Your task to perform on an android device: turn on wifi Image 0: 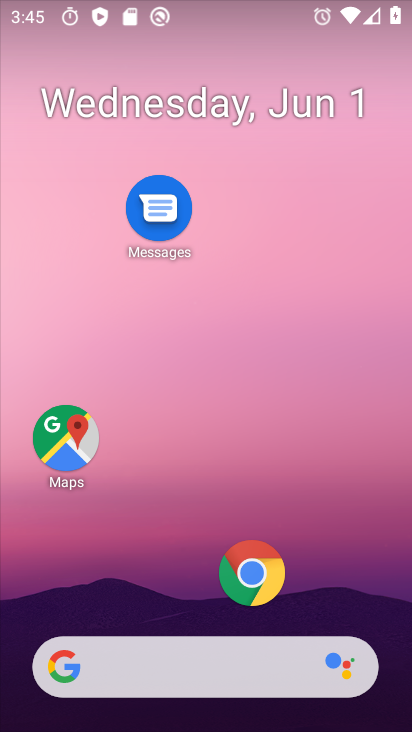
Step 0: drag from (193, 623) to (198, 219)
Your task to perform on an android device: turn on wifi Image 1: 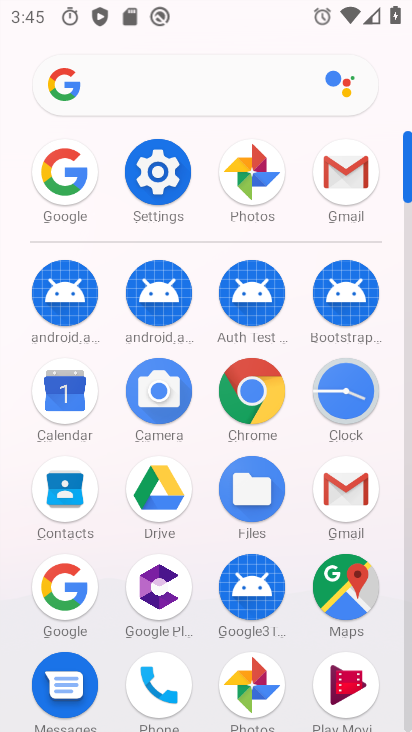
Step 1: click (165, 184)
Your task to perform on an android device: turn on wifi Image 2: 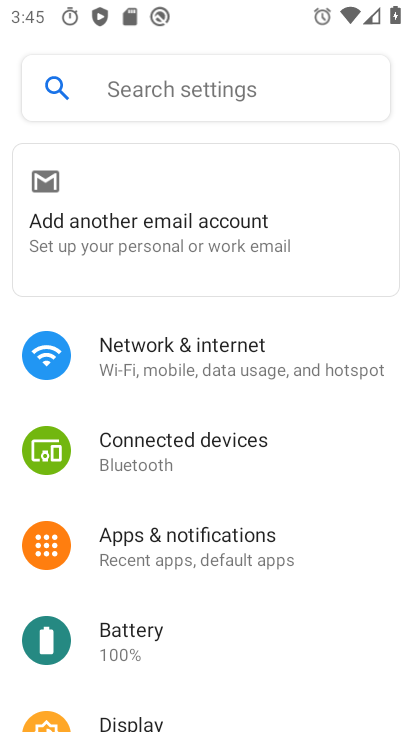
Step 2: click (182, 373)
Your task to perform on an android device: turn on wifi Image 3: 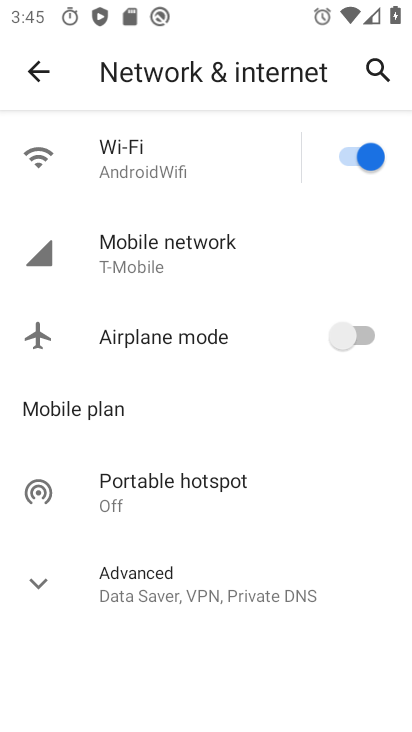
Step 3: task complete